Your task to perform on an android device: Go to Google Image 0: 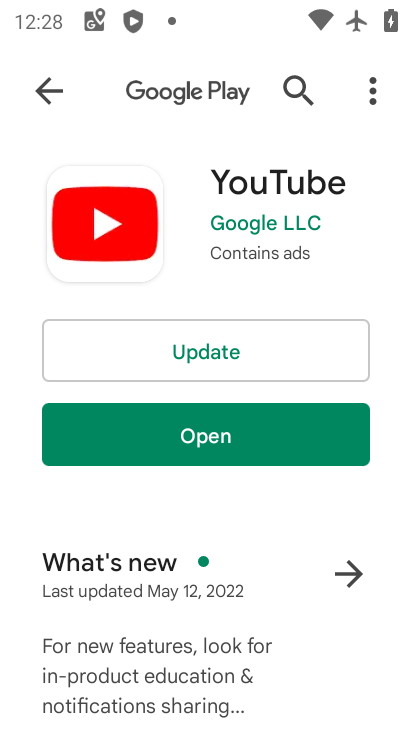
Step 0: press home button
Your task to perform on an android device: Go to Google Image 1: 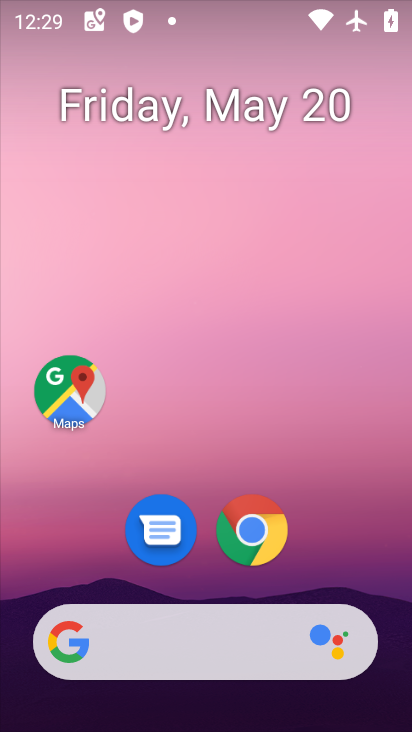
Step 1: drag from (206, 712) to (307, 153)
Your task to perform on an android device: Go to Google Image 2: 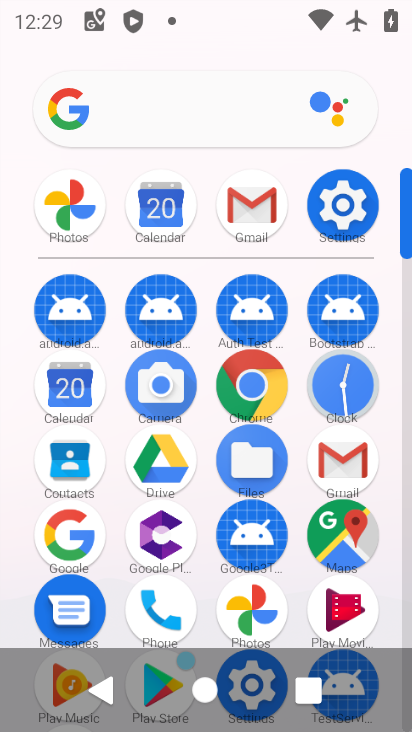
Step 2: drag from (104, 602) to (121, 148)
Your task to perform on an android device: Go to Google Image 3: 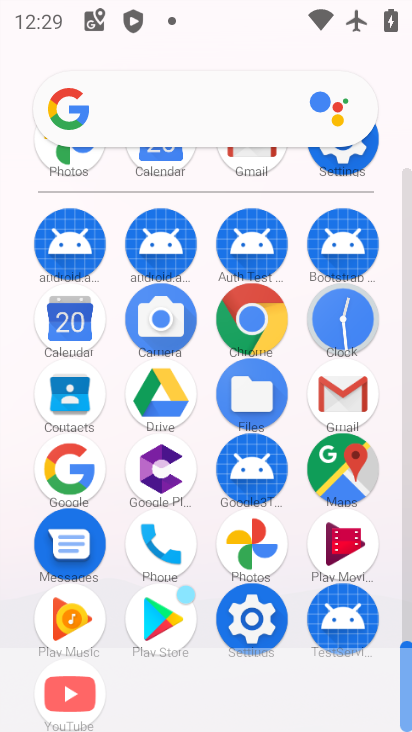
Step 3: click (71, 455)
Your task to perform on an android device: Go to Google Image 4: 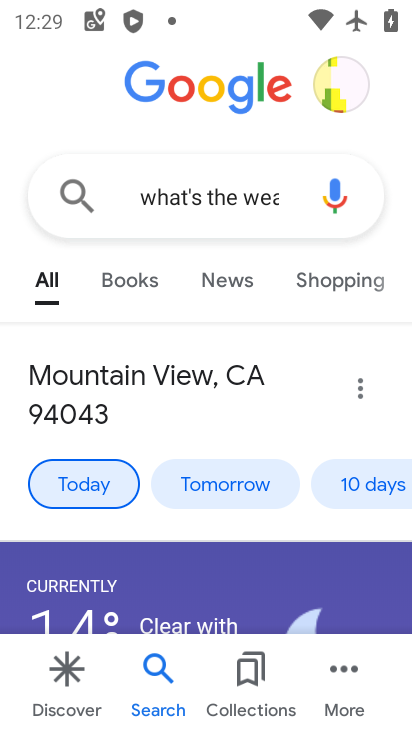
Step 4: task complete